Your task to perform on an android device: toggle notification dots Image 0: 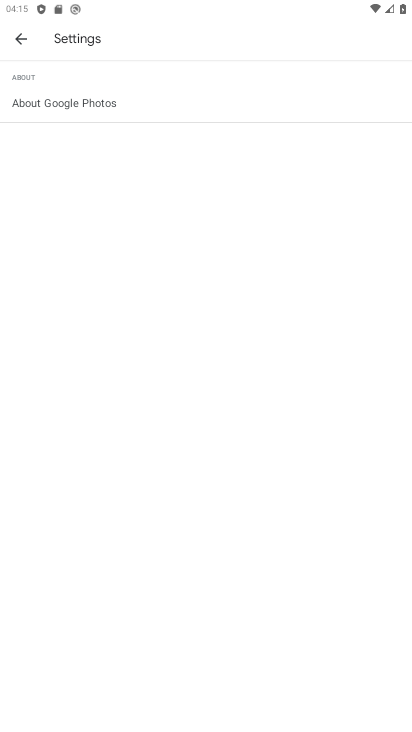
Step 0: press home button
Your task to perform on an android device: toggle notification dots Image 1: 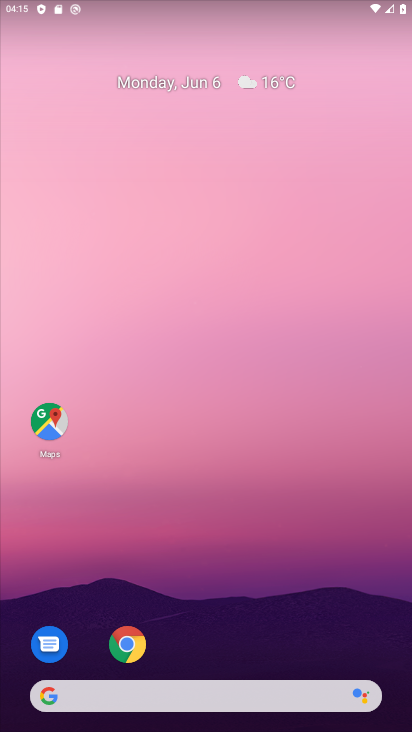
Step 1: drag from (401, 691) to (315, 19)
Your task to perform on an android device: toggle notification dots Image 2: 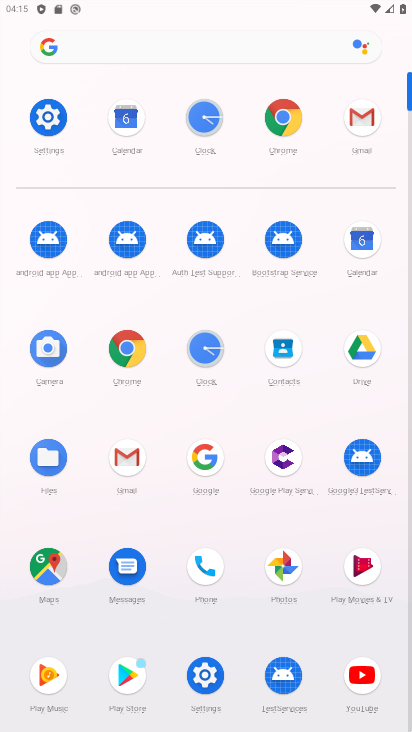
Step 2: click (44, 117)
Your task to perform on an android device: toggle notification dots Image 3: 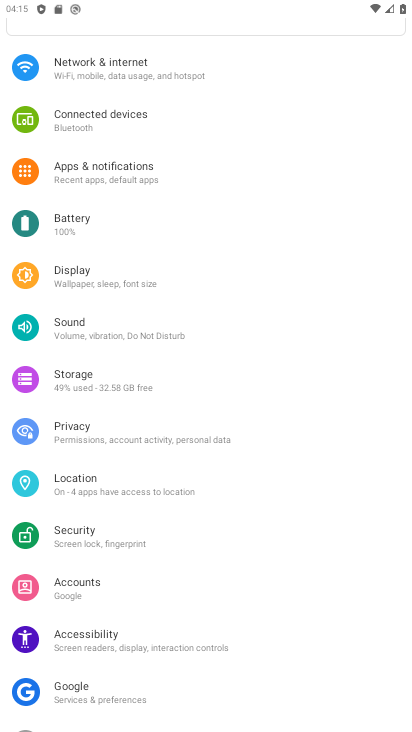
Step 3: click (113, 169)
Your task to perform on an android device: toggle notification dots Image 4: 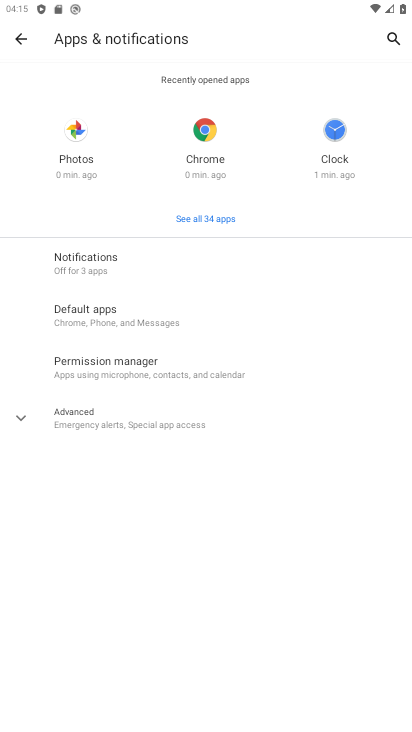
Step 4: click (91, 258)
Your task to perform on an android device: toggle notification dots Image 5: 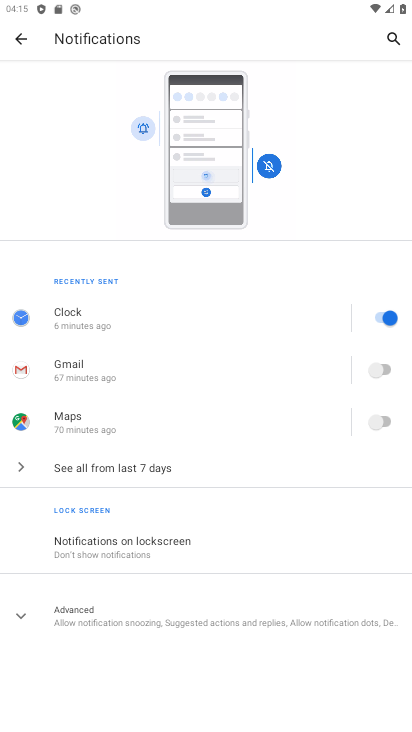
Step 5: click (14, 613)
Your task to perform on an android device: toggle notification dots Image 6: 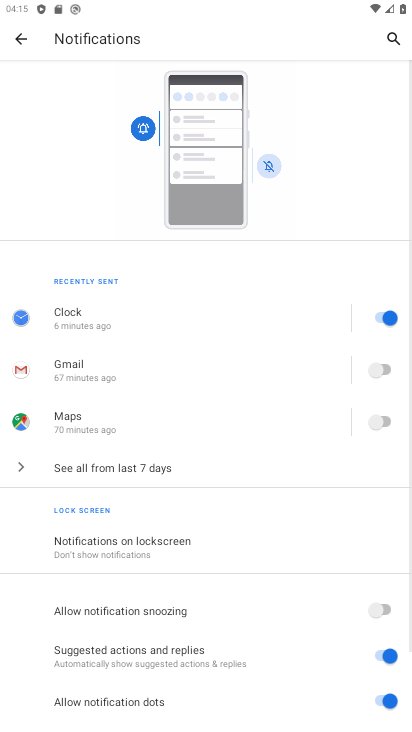
Step 6: drag from (246, 628) to (242, 303)
Your task to perform on an android device: toggle notification dots Image 7: 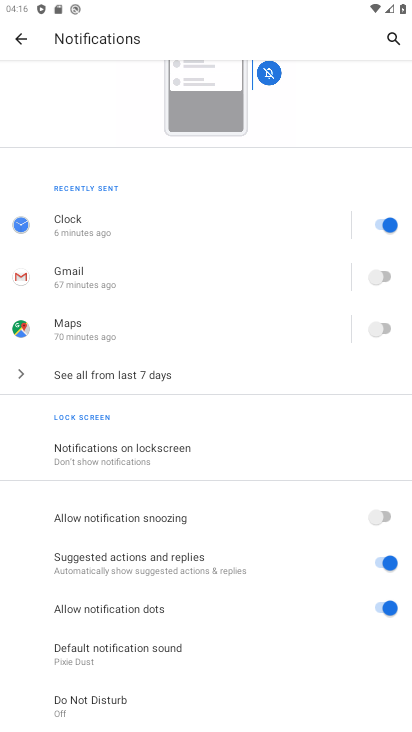
Step 7: click (386, 609)
Your task to perform on an android device: toggle notification dots Image 8: 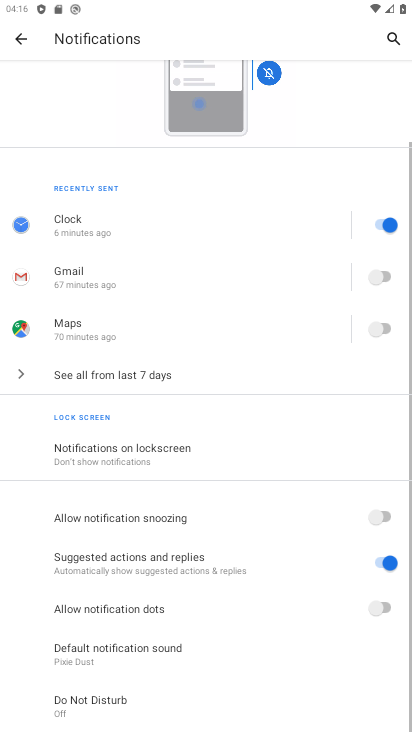
Step 8: task complete